Your task to perform on an android device: Open wifi settings Image 0: 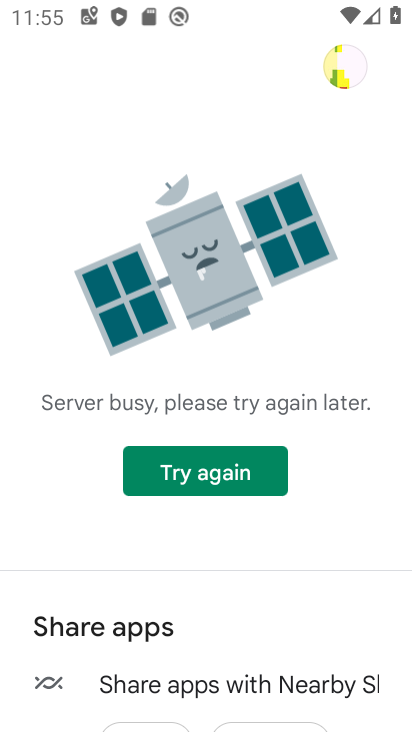
Step 0: press home button
Your task to perform on an android device: Open wifi settings Image 1: 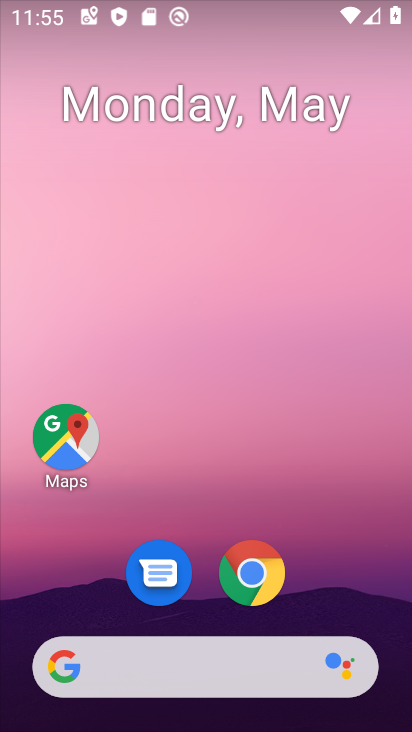
Step 1: drag from (183, 608) to (189, 2)
Your task to perform on an android device: Open wifi settings Image 2: 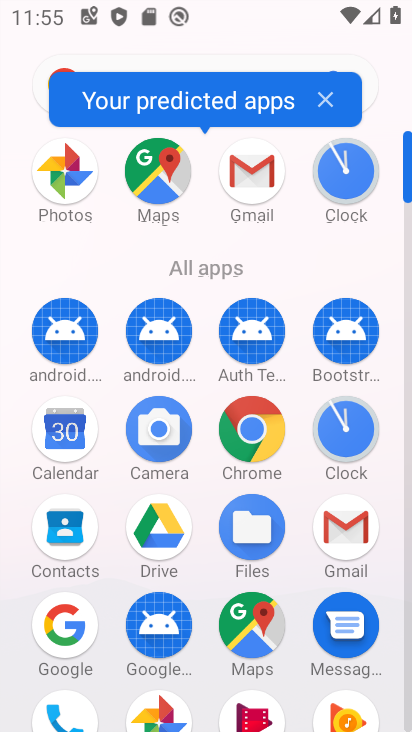
Step 2: drag from (202, 496) to (268, 41)
Your task to perform on an android device: Open wifi settings Image 3: 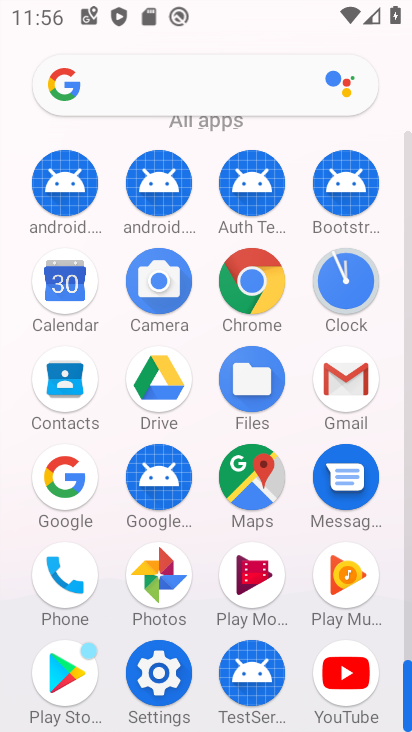
Step 3: click (157, 685)
Your task to perform on an android device: Open wifi settings Image 4: 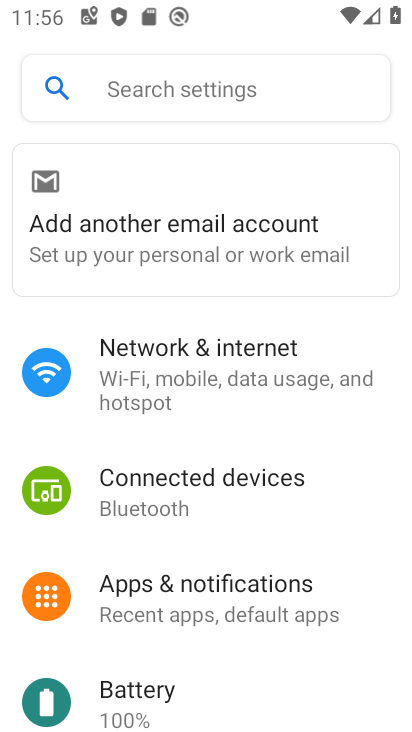
Step 4: click (211, 369)
Your task to perform on an android device: Open wifi settings Image 5: 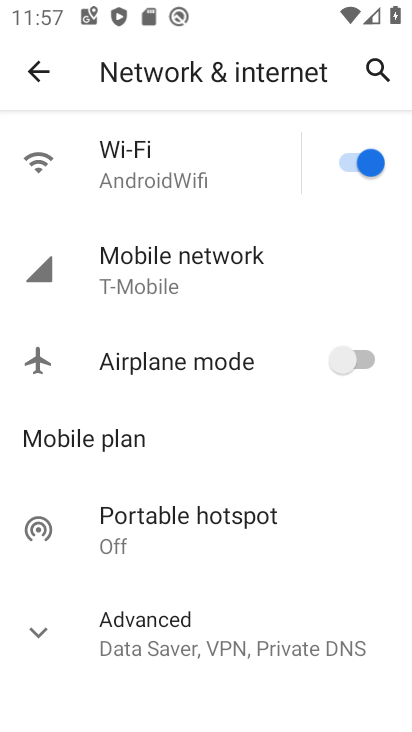
Step 5: click (144, 155)
Your task to perform on an android device: Open wifi settings Image 6: 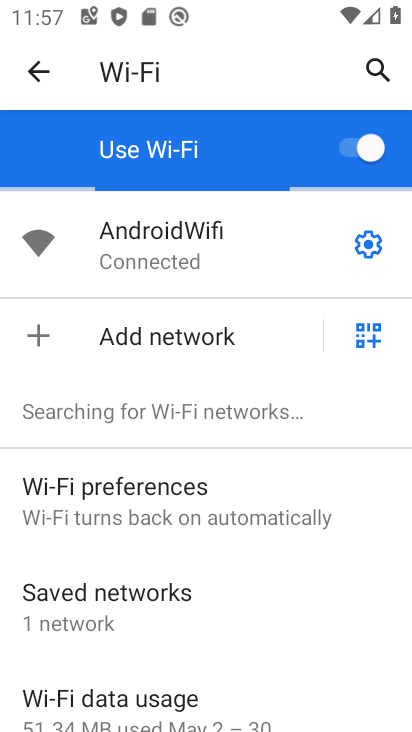
Step 6: task complete